Your task to perform on an android device: find which apps use the phone's location Image 0: 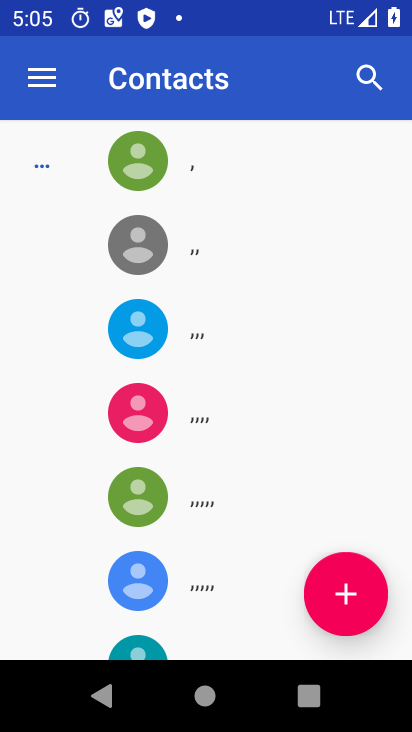
Step 0: press home button
Your task to perform on an android device: find which apps use the phone's location Image 1: 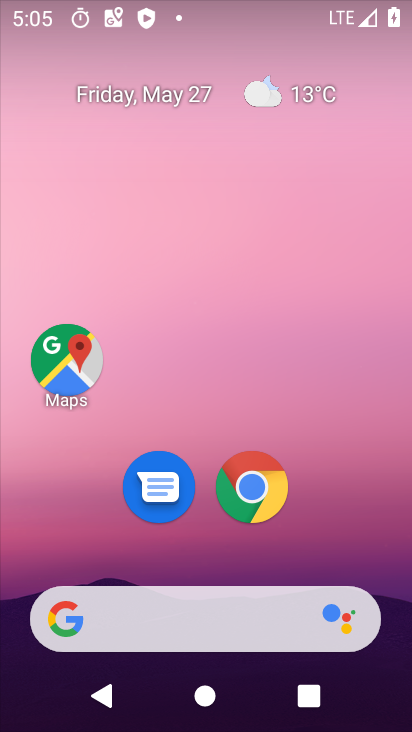
Step 1: drag from (336, 512) to (266, 165)
Your task to perform on an android device: find which apps use the phone's location Image 2: 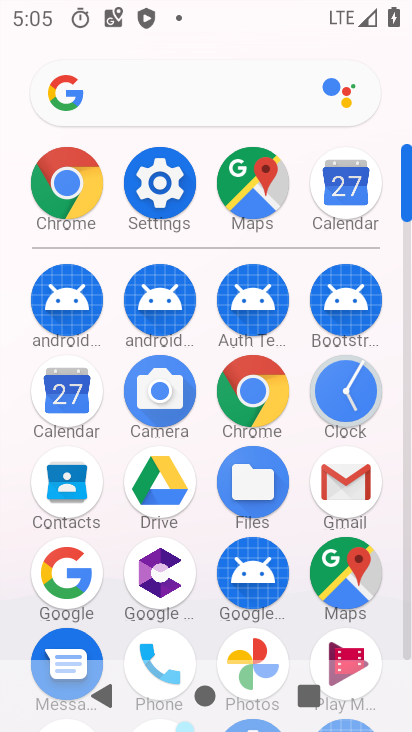
Step 2: click (153, 187)
Your task to perform on an android device: find which apps use the phone's location Image 3: 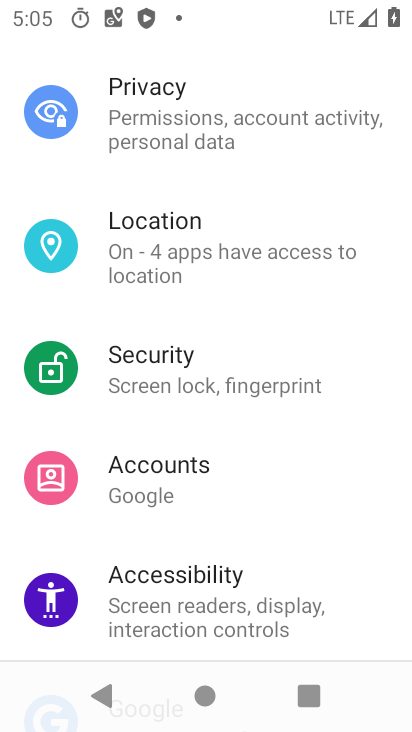
Step 3: click (176, 252)
Your task to perform on an android device: find which apps use the phone's location Image 4: 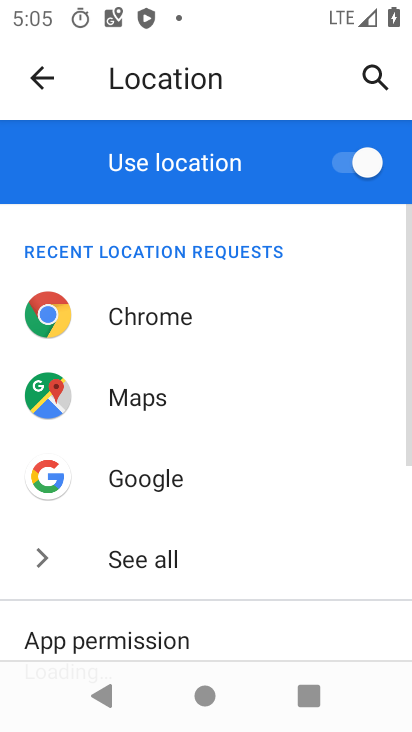
Step 4: drag from (235, 528) to (282, 160)
Your task to perform on an android device: find which apps use the phone's location Image 5: 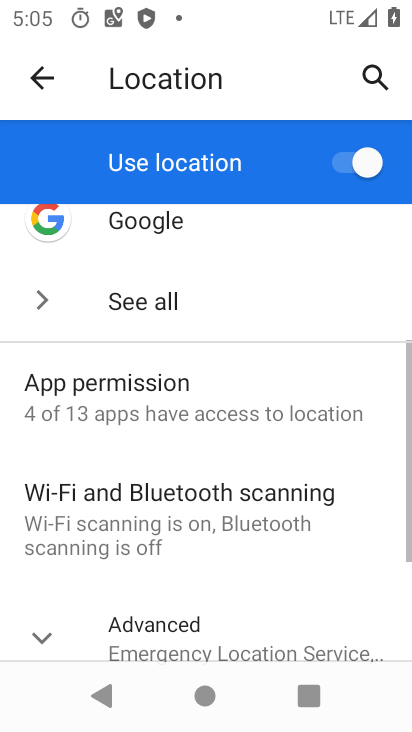
Step 5: drag from (217, 533) to (241, 223)
Your task to perform on an android device: find which apps use the phone's location Image 6: 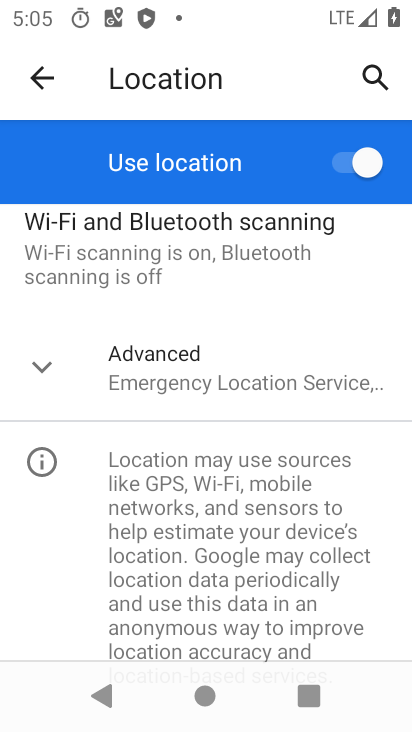
Step 6: drag from (155, 298) to (183, 502)
Your task to perform on an android device: find which apps use the phone's location Image 7: 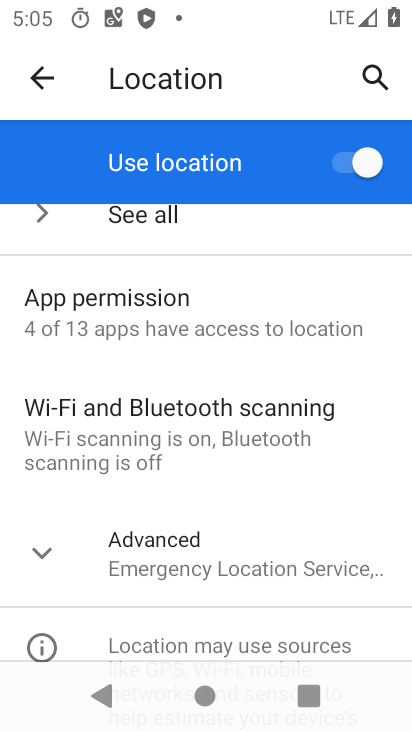
Step 7: click (181, 333)
Your task to perform on an android device: find which apps use the phone's location Image 8: 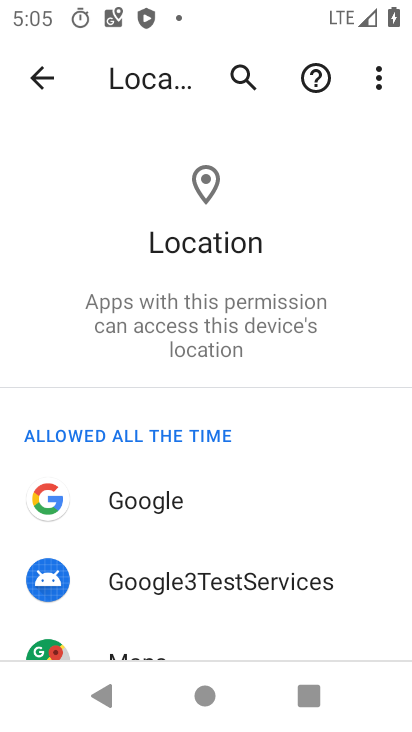
Step 8: task complete